Your task to perform on an android device: What's on my calendar today? Image 0: 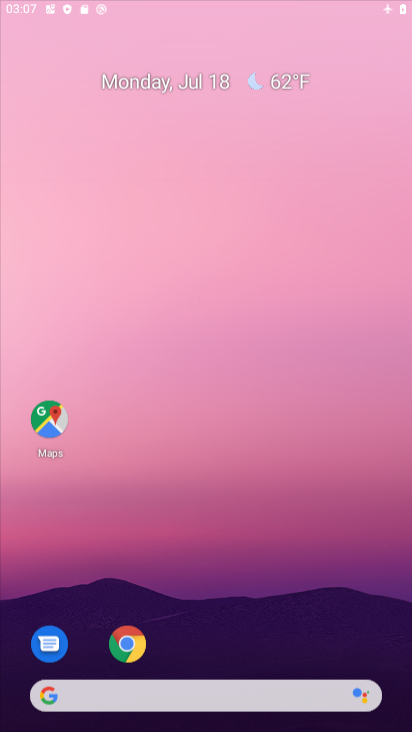
Step 0: press back button
Your task to perform on an android device: What's on my calendar today? Image 1: 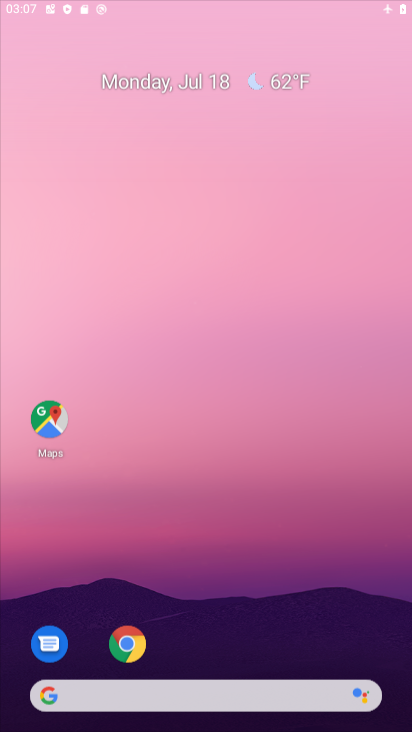
Step 1: click (140, 221)
Your task to perform on an android device: What's on my calendar today? Image 2: 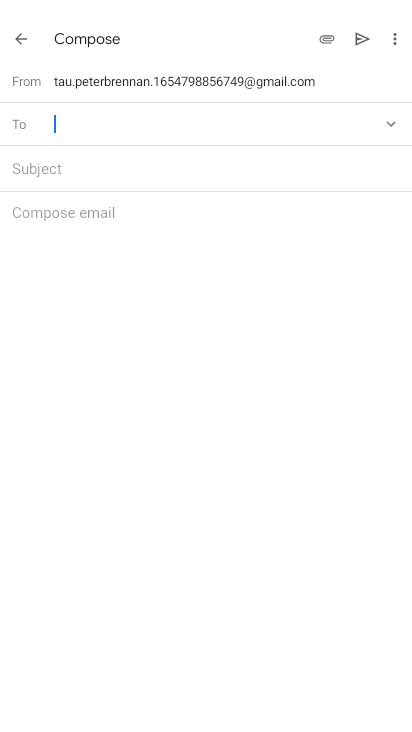
Step 2: click (138, 159)
Your task to perform on an android device: What's on my calendar today? Image 3: 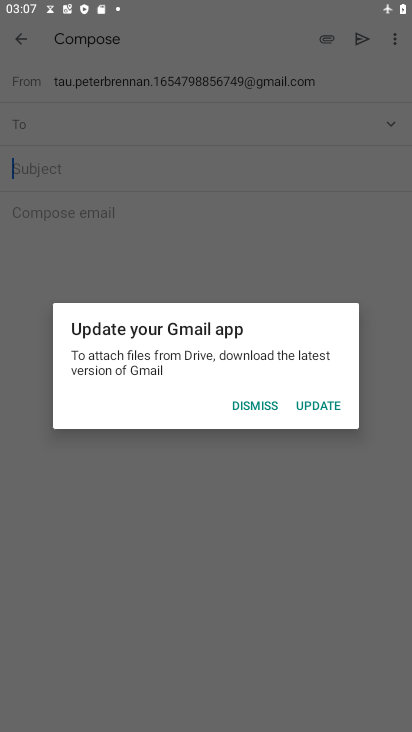
Step 3: click (250, 411)
Your task to perform on an android device: What's on my calendar today? Image 4: 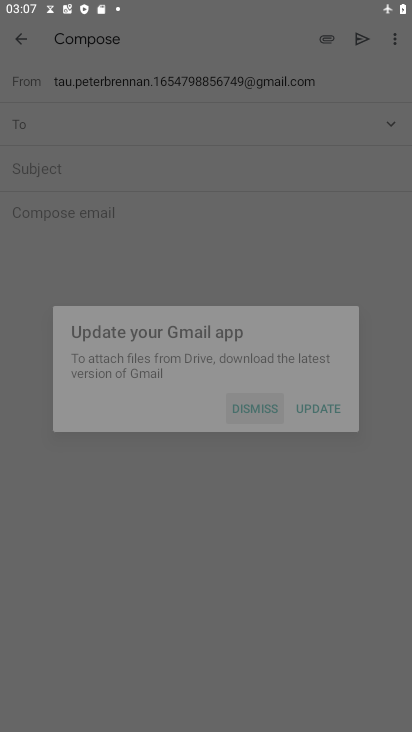
Step 4: click (250, 411)
Your task to perform on an android device: What's on my calendar today? Image 5: 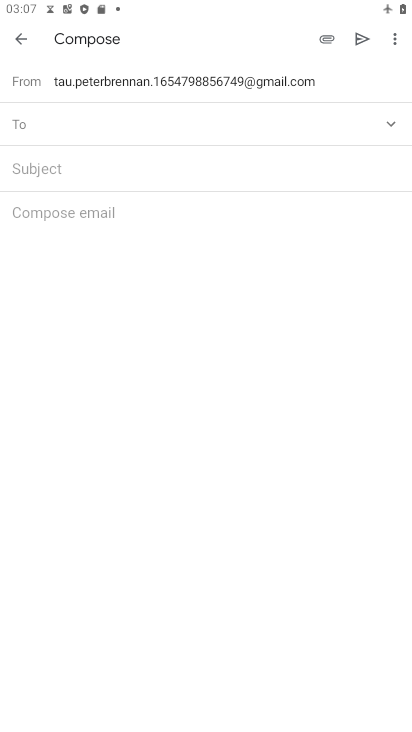
Step 5: click (250, 411)
Your task to perform on an android device: What's on my calendar today? Image 6: 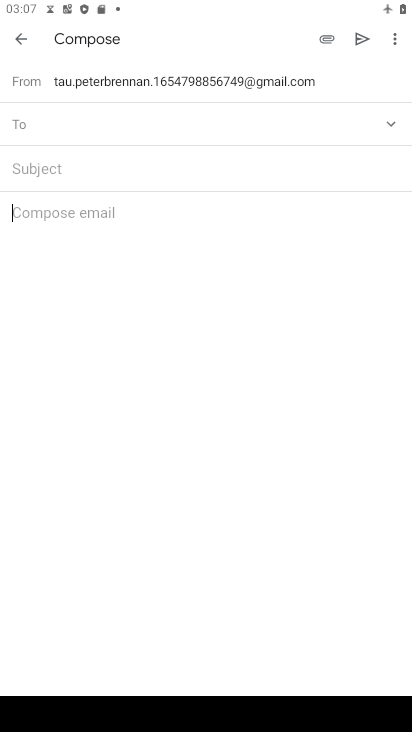
Step 6: click (16, 40)
Your task to perform on an android device: What's on my calendar today? Image 7: 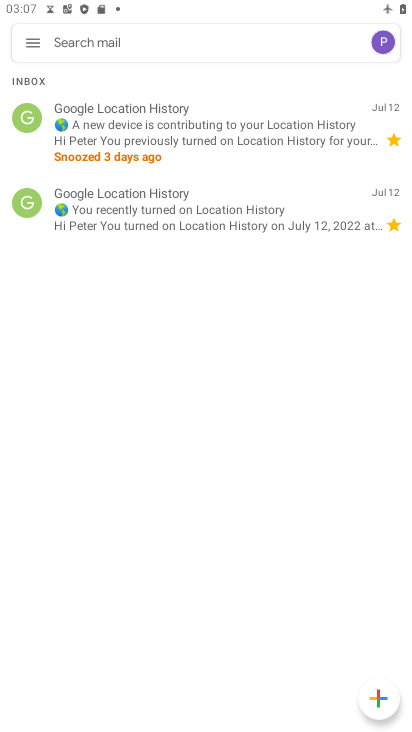
Step 7: press back button
Your task to perform on an android device: What's on my calendar today? Image 8: 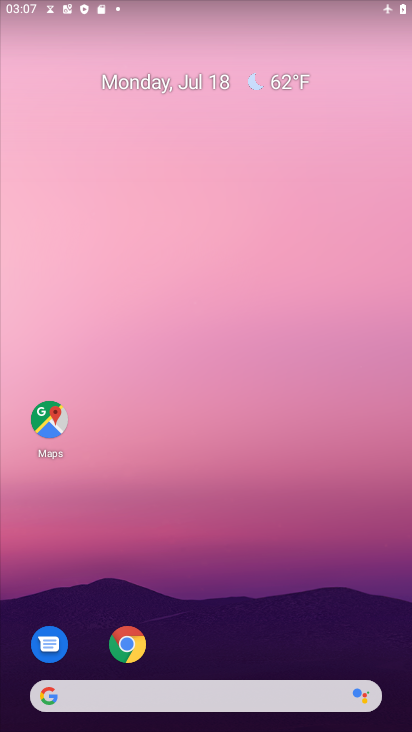
Step 8: drag from (298, 645) to (209, 381)
Your task to perform on an android device: What's on my calendar today? Image 9: 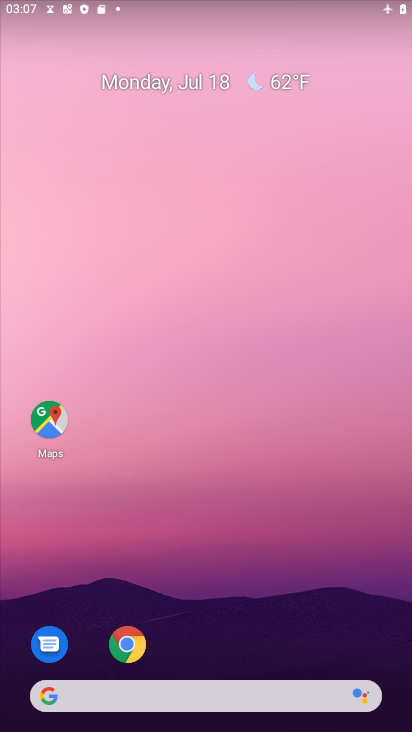
Step 9: drag from (181, 652) to (154, 365)
Your task to perform on an android device: What's on my calendar today? Image 10: 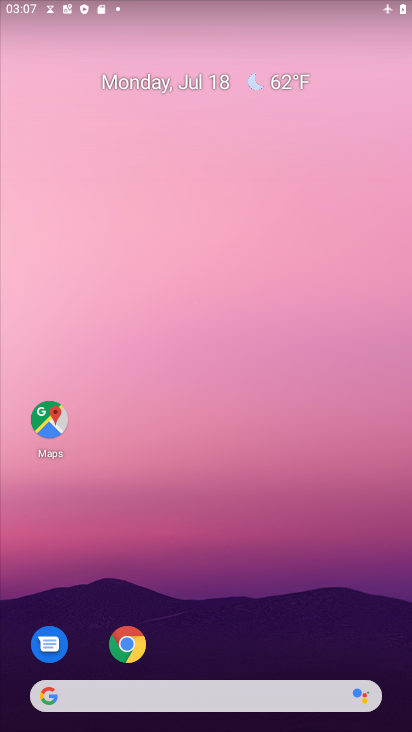
Step 10: drag from (200, 571) to (165, 286)
Your task to perform on an android device: What's on my calendar today? Image 11: 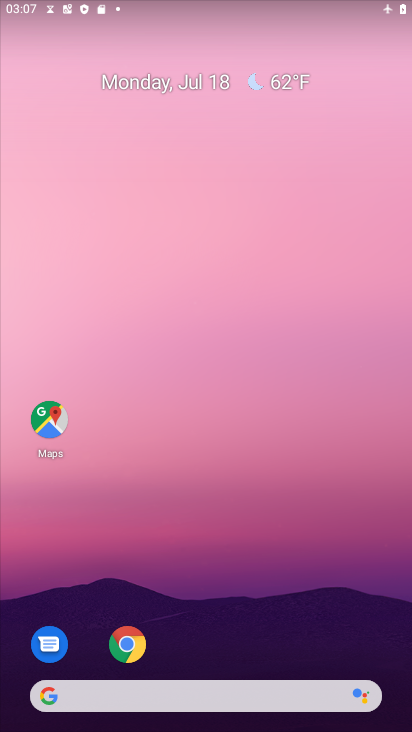
Step 11: drag from (179, 564) to (145, 210)
Your task to perform on an android device: What's on my calendar today? Image 12: 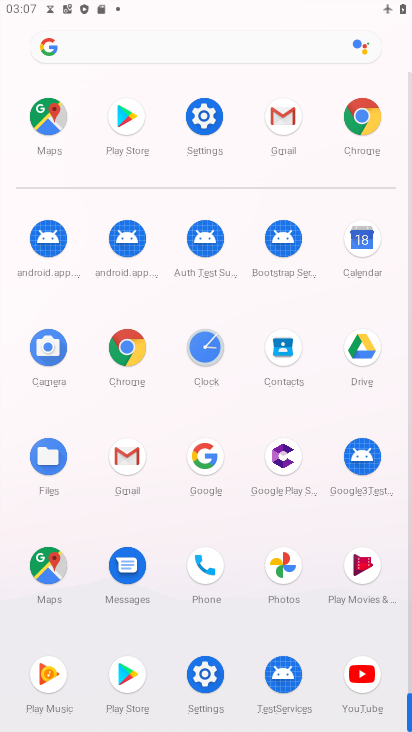
Step 12: click (367, 245)
Your task to perform on an android device: What's on my calendar today? Image 13: 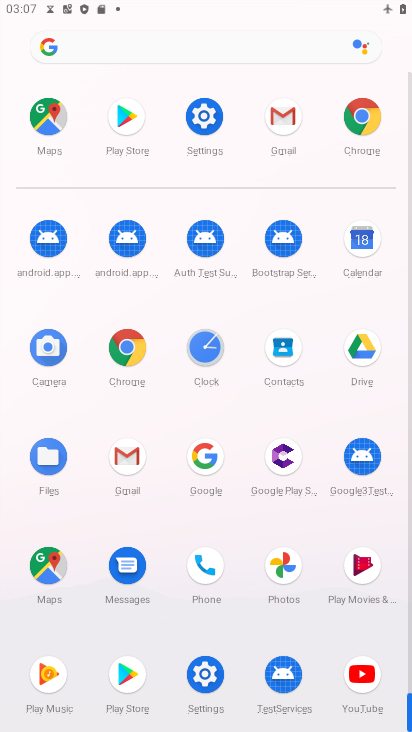
Step 13: click (367, 245)
Your task to perform on an android device: What's on my calendar today? Image 14: 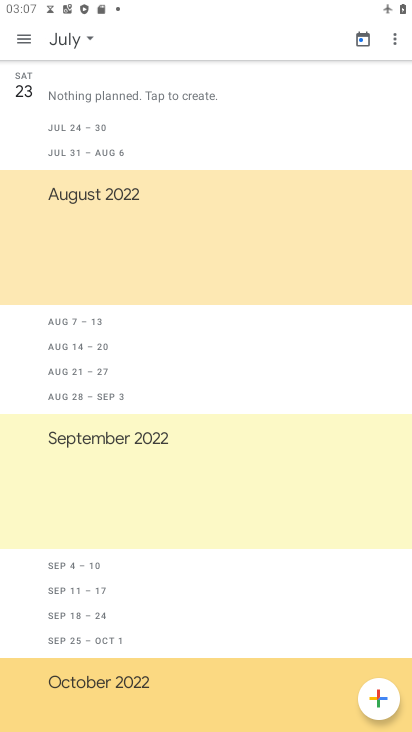
Step 14: click (90, 32)
Your task to perform on an android device: What's on my calendar today? Image 15: 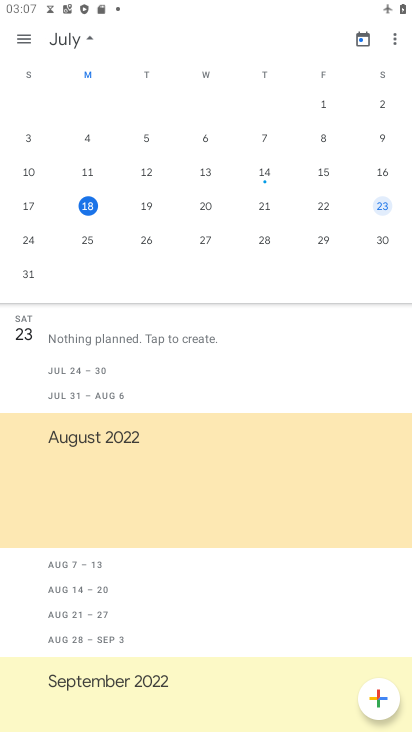
Step 15: drag from (253, 188) to (51, 210)
Your task to perform on an android device: What's on my calendar today? Image 16: 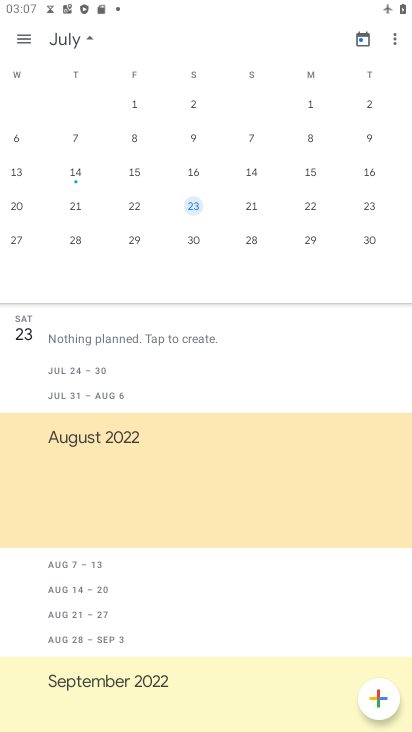
Step 16: drag from (313, 233) to (69, 233)
Your task to perform on an android device: What's on my calendar today? Image 17: 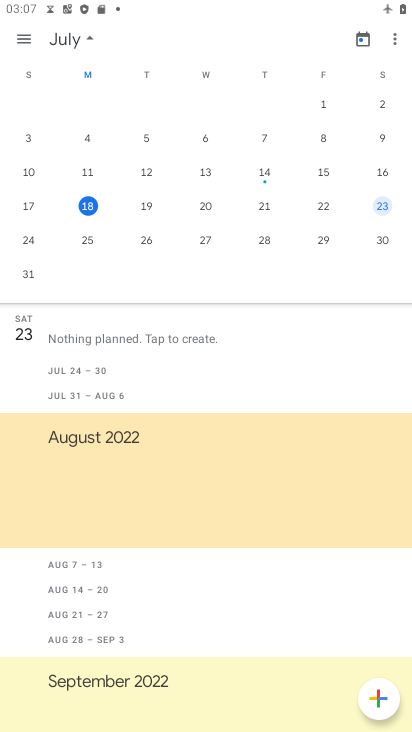
Step 17: click (86, 204)
Your task to perform on an android device: What's on my calendar today? Image 18: 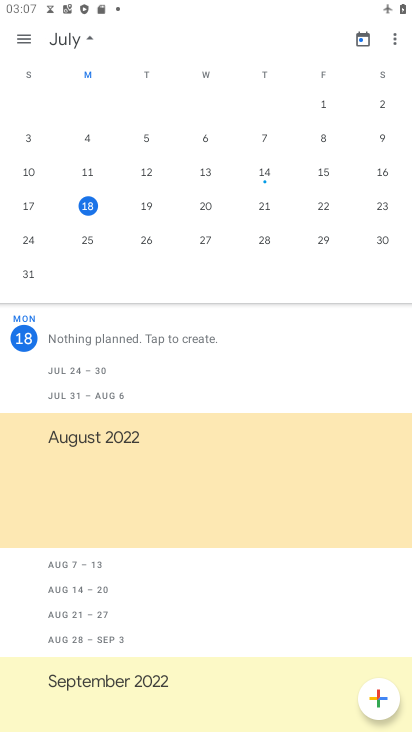
Step 18: task complete